Your task to perform on an android device: When is my next appointment? Image 0: 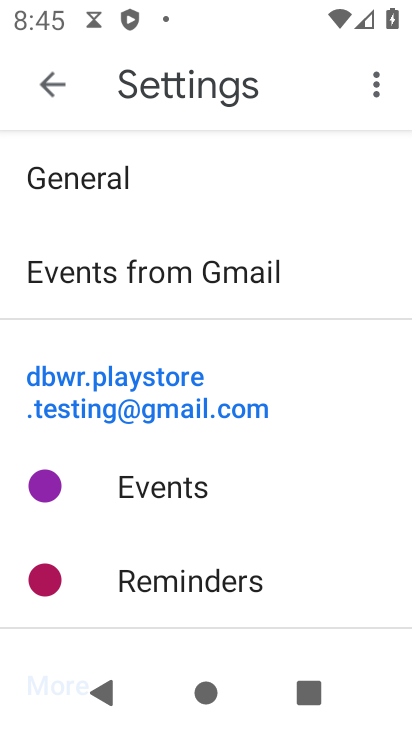
Step 0: press home button
Your task to perform on an android device: When is my next appointment? Image 1: 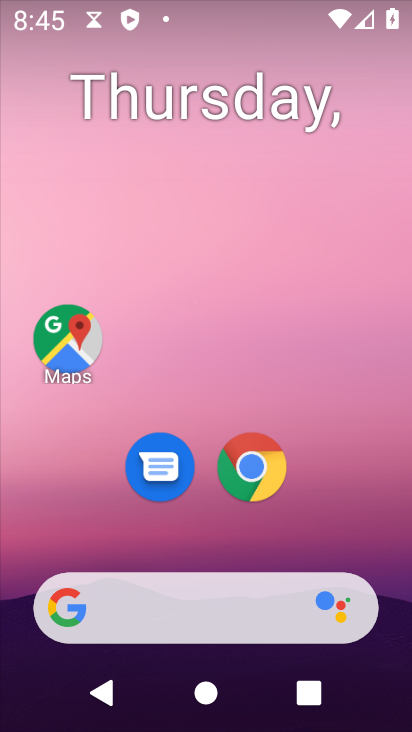
Step 1: drag from (281, 542) to (288, 107)
Your task to perform on an android device: When is my next appointment? Image 2: 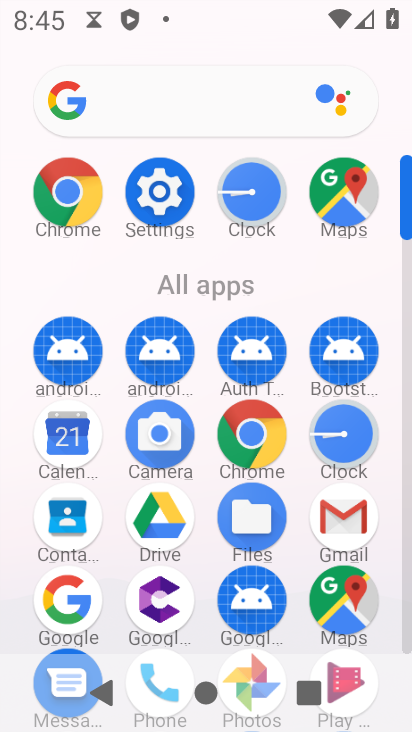
Step 2: click (83, 429)
Your task to perform on an android device: When is my next appointment? Image 3: 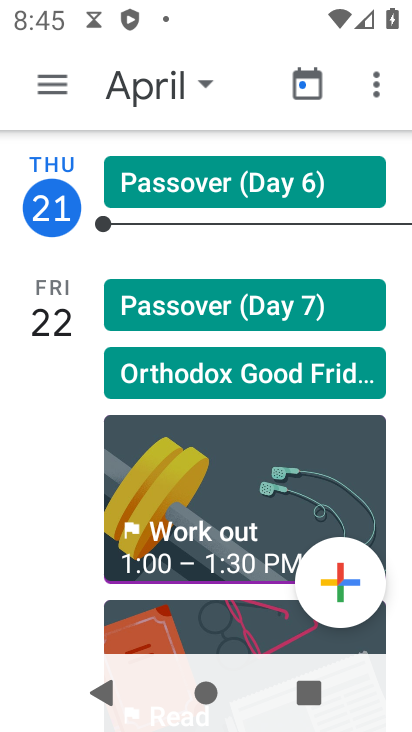
Step 3: task complete